Your task to perform on an android device: turn notification dots on Image 0: 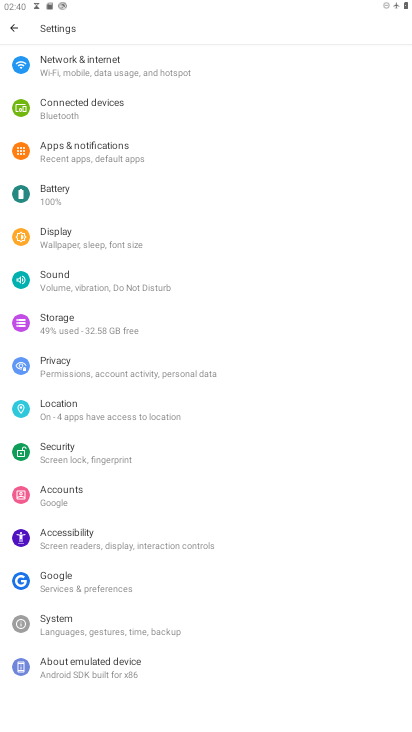
Step 0: drag from (89, 22) to (106, 554)
Your task to perform on an android device: turn notification dots on Image 1: 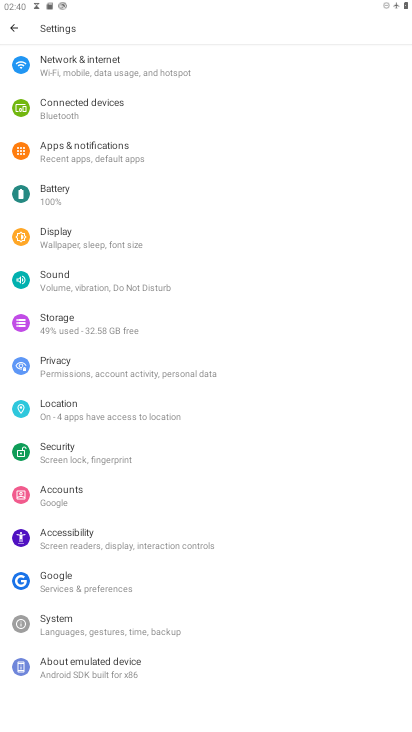
Step 1: drag from (124, 82) to (157, 720)
Your task to perform on an android device: turn notification dots on Image 2: 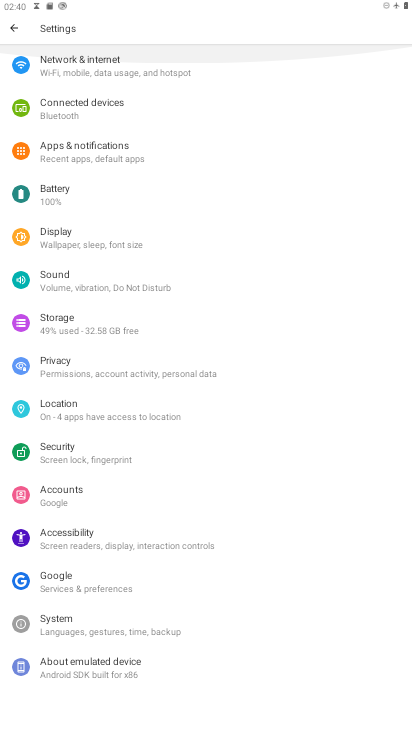
Step 2: drag from (143, 163) to (172, 574)
Your task to perform on an android device: turn notification dots on Image 3: 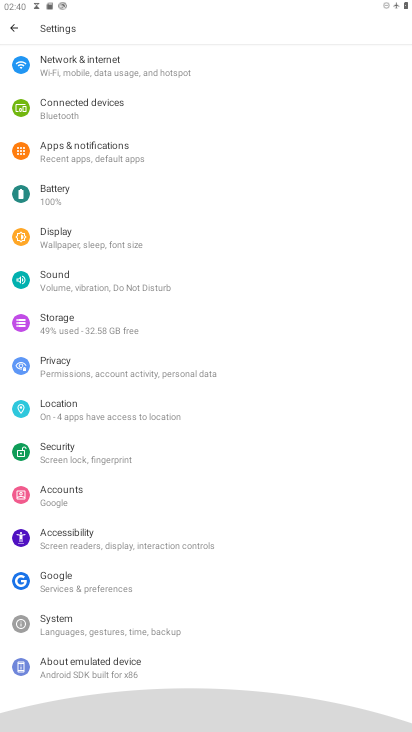
Step 3: drag from (146, 632) to (112, 542)
Your task to perform on an android device: turn notification dots on Image 4: 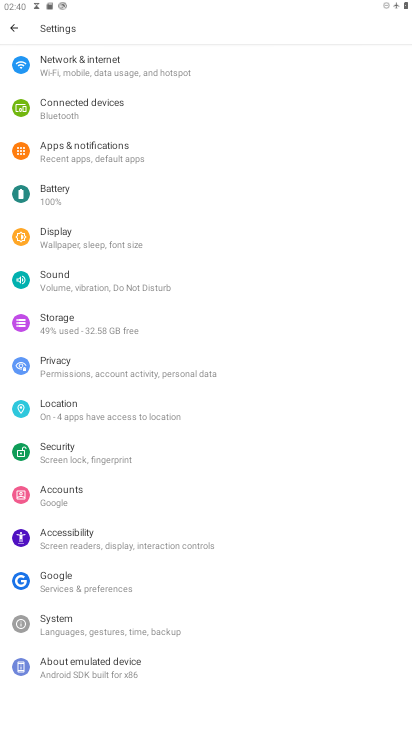
Step 4: drag from (191, 226) to (240, 712)
Your task to perform on an android device: turn notification dots on Image 5: 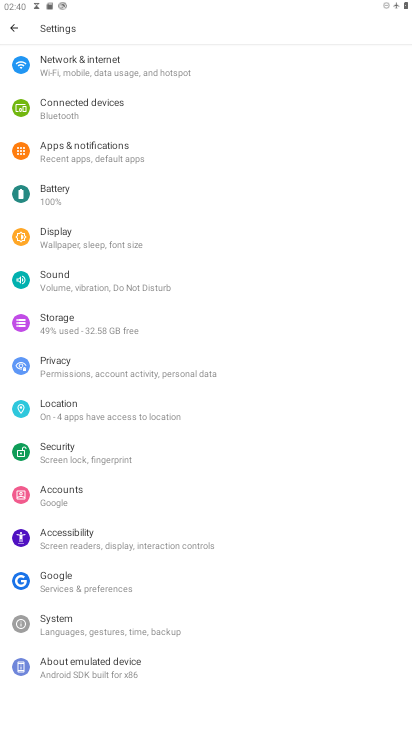
Step 5: click (12, 28)
Your task to perform on an android device: turn notification dots on Image 6: 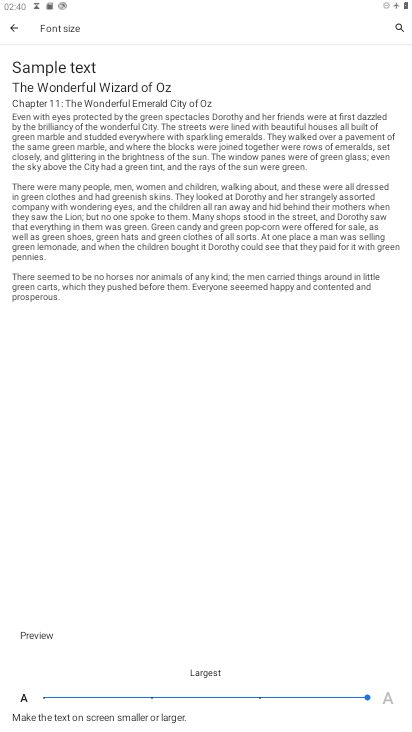
Step 6: click (10, 24)
Your task to perform on an android device: turn notification dots on Image 7: 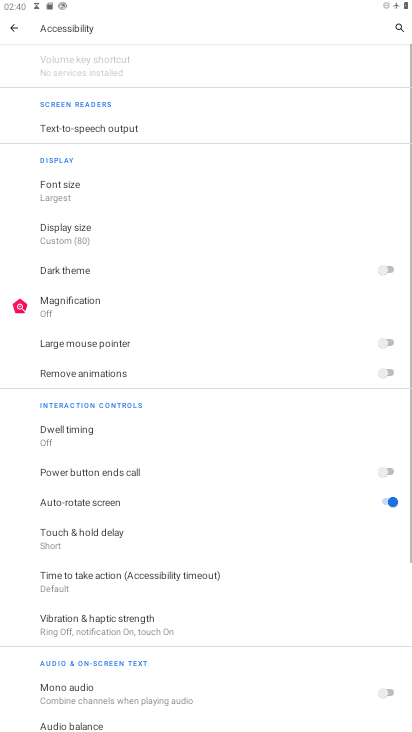
Step 7: click (10, 24)
Your task to perform on an android device: turn notification dots on Image 8: 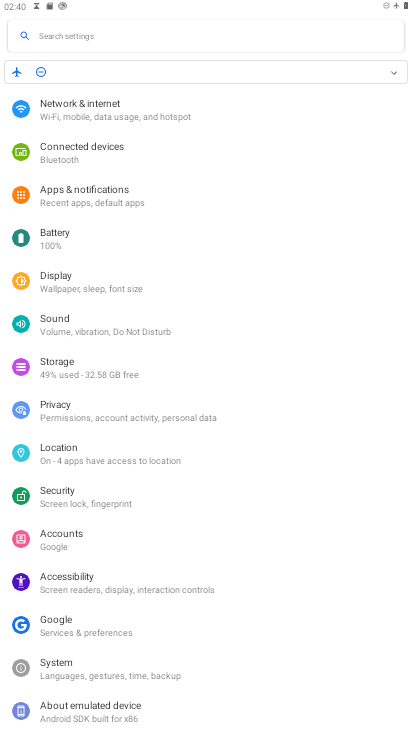
Step 8: click (120, 34)
Your task to perform on an android device: turn notification dots on Image 9: 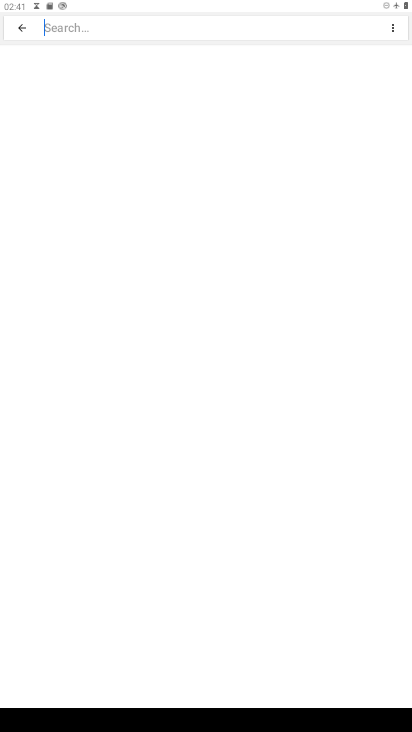
Step 9: click (200, 17)
Your task to perform on an android device: turn notification dots on Image 10: 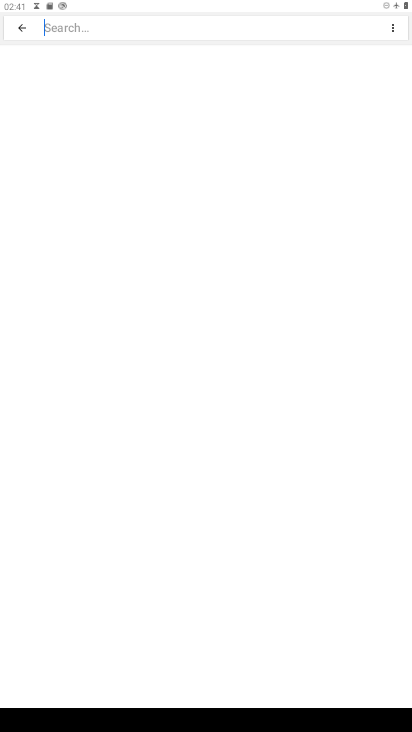
Step 10: type "notification dots"
Your task to perform on an android device: turn notification dots on Image 11: 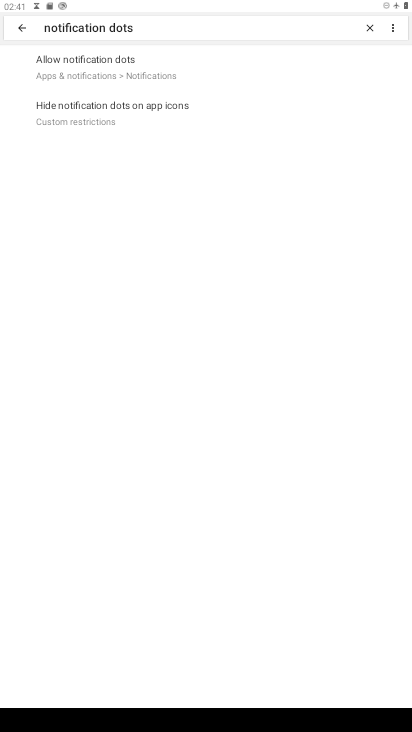
Step 11: click (134, 66)
Your task to perform on an android device: turn notification dots on Image 12: 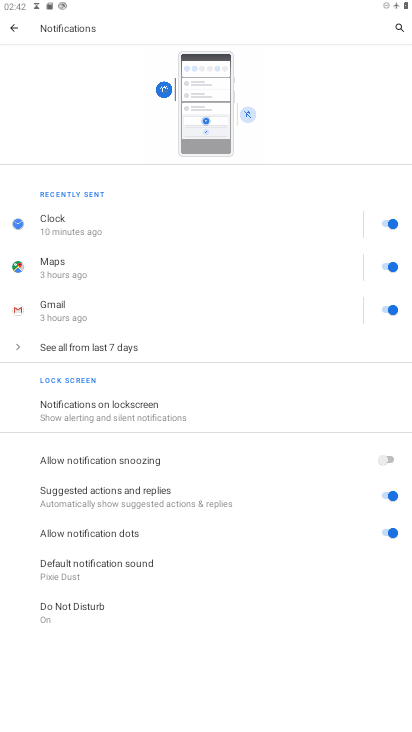
Step 12: task complete